Your task to perform on an android device: Clear all items from cart on ebay.com. Image 0: 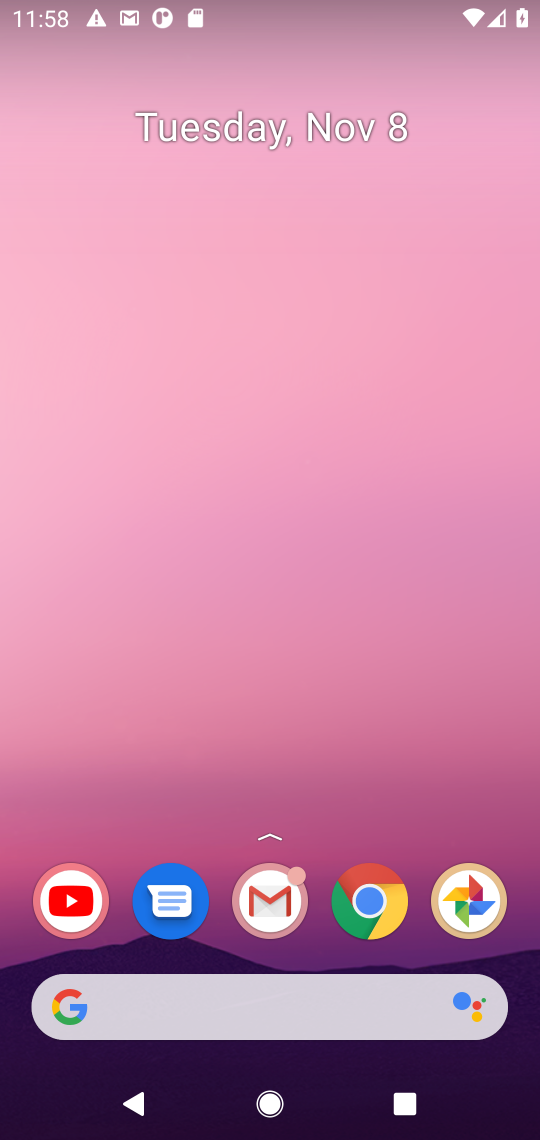
Step 0: click (363, 907)
Your task to perform on an android device: Clear all items from cart on ebay.com. Image 1: 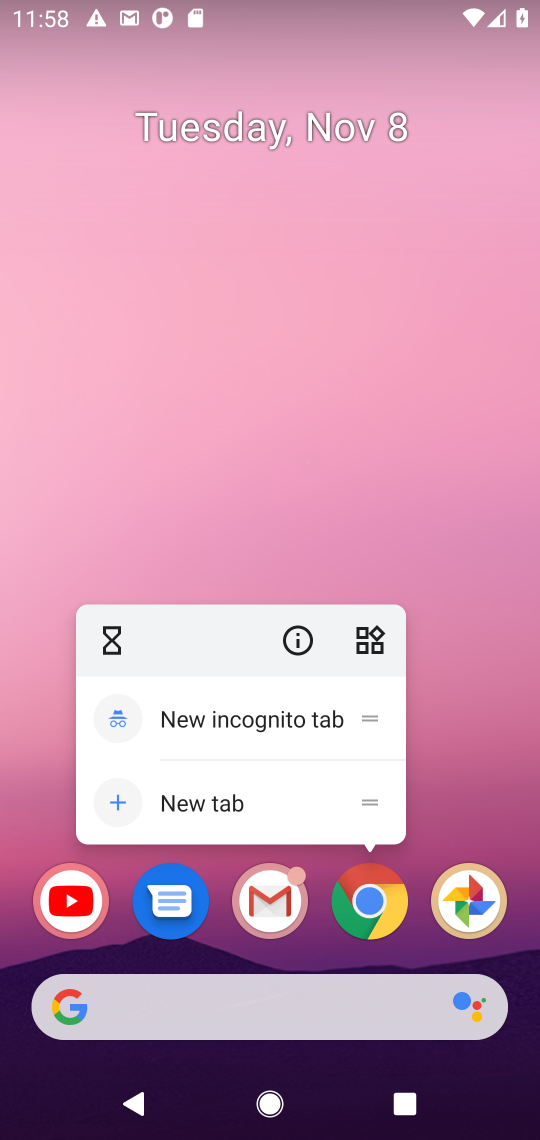
Step 1: click (363, 907)
Your task to perform on an android device: Clear all items from cart on ebay.com. Image 2: 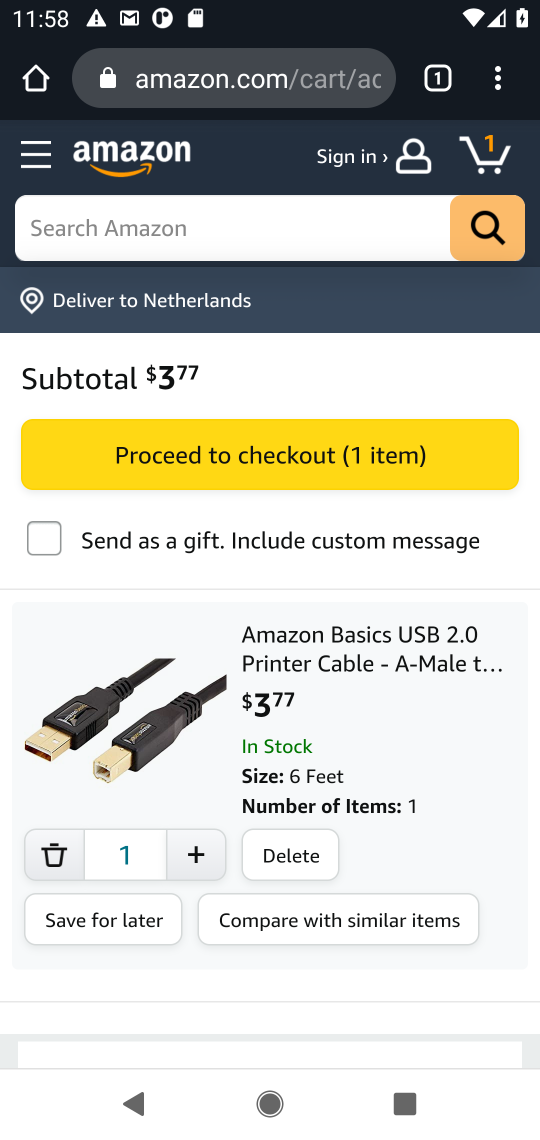
Step 2: click (233, 212)
Your task to perform on an android device: Clear all items from cart on ebay.com. Image 3: 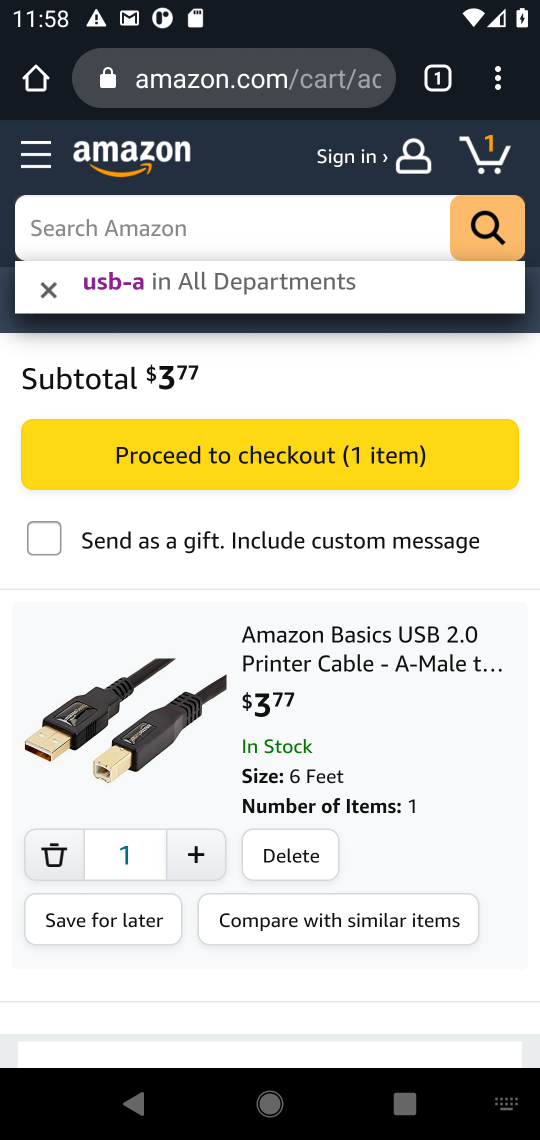
Step 3: click (318, 94)
Your task to perform on an android device: Clear all items from cart on ebay.com. Image 4: 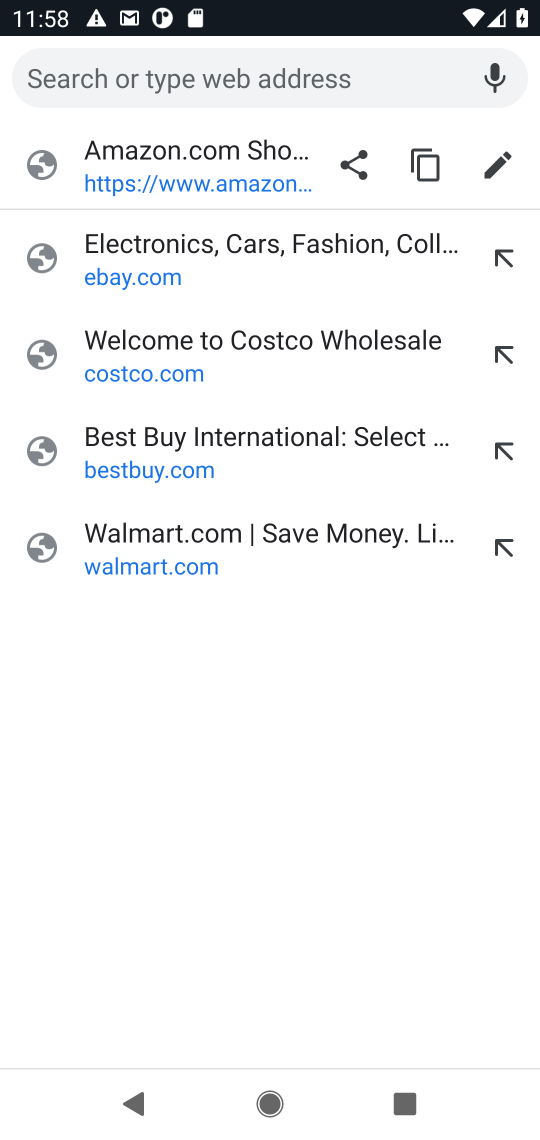
Step 4: type " ebay.com"
Your task to perform on an android device: Clear all items from cart on ebay.com. Image 5: 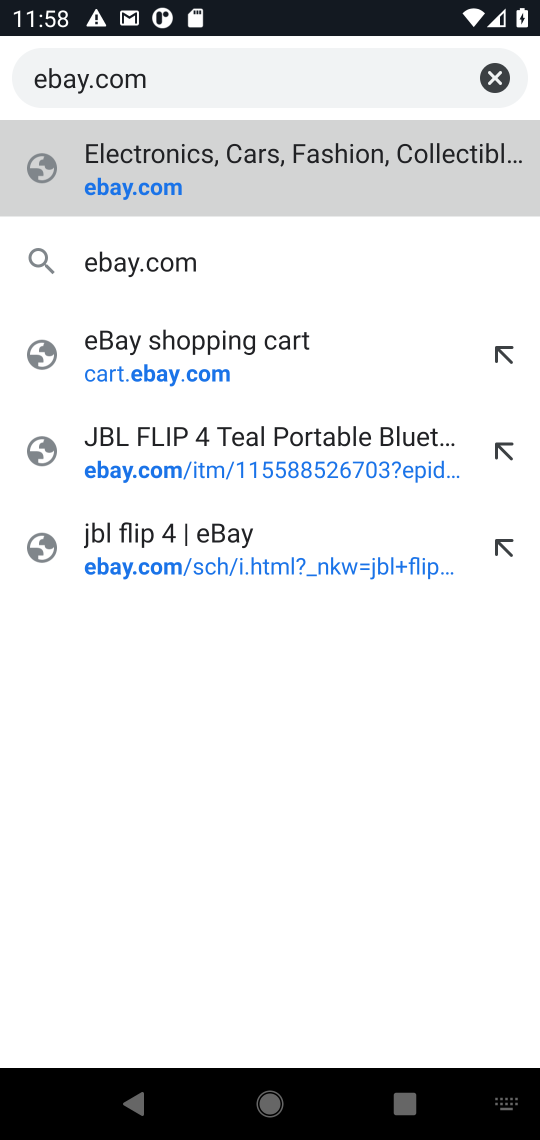
Step 5: press enter
Your task to perform on an android device: Clear all items from cart on ebay.com. Image 6: 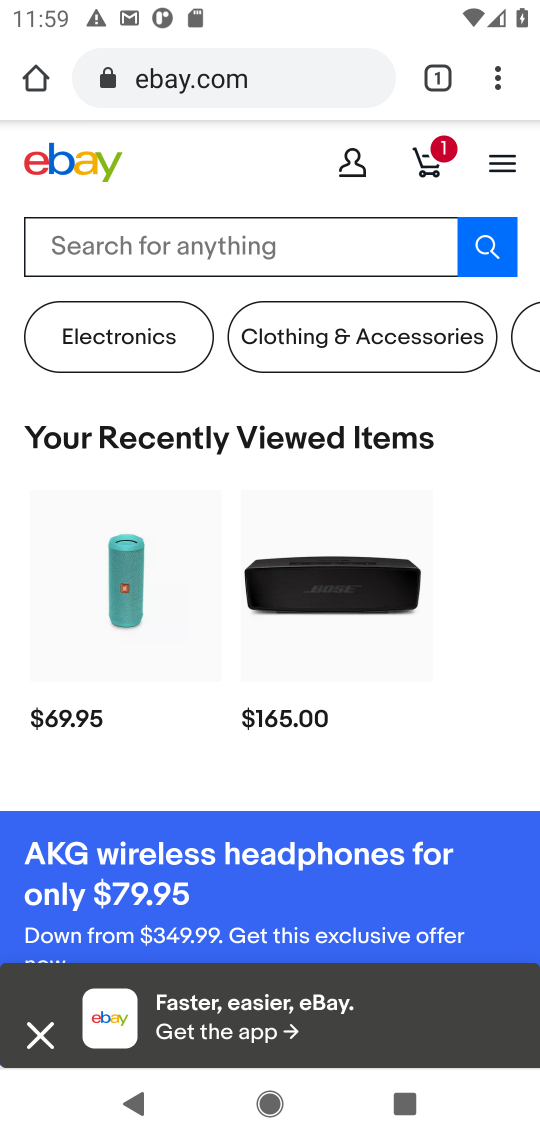
Step 6: click (434, 155)
Your task to perform on an android device: Clear all items from cart on ebay.com. Image 7: 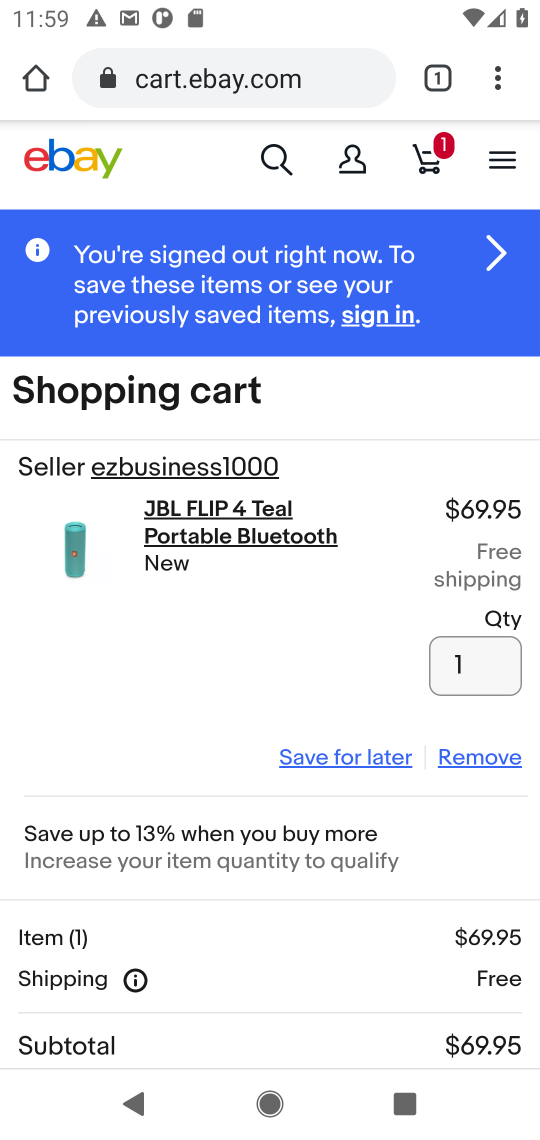
Step 7: click (493, 754)
Your task to perform on an android device: Clear all items from cart on ebay.com. Image 8: 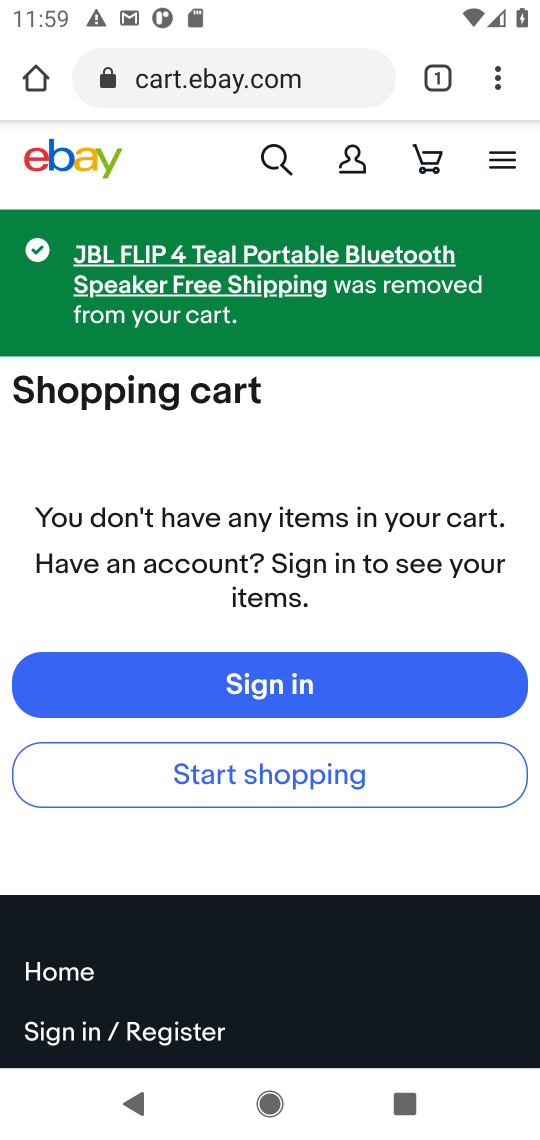
Step 8: task complete